Your task to perform on an android device: See recent photos Image 0: 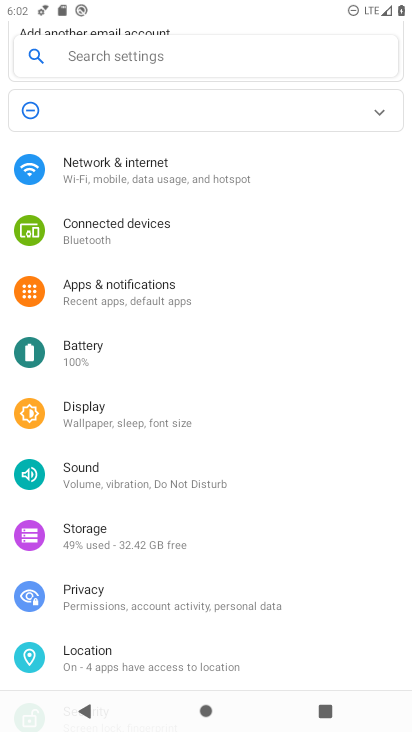
Step 0: press home button
Your task to perform on an android device: See recent photos Image 1: 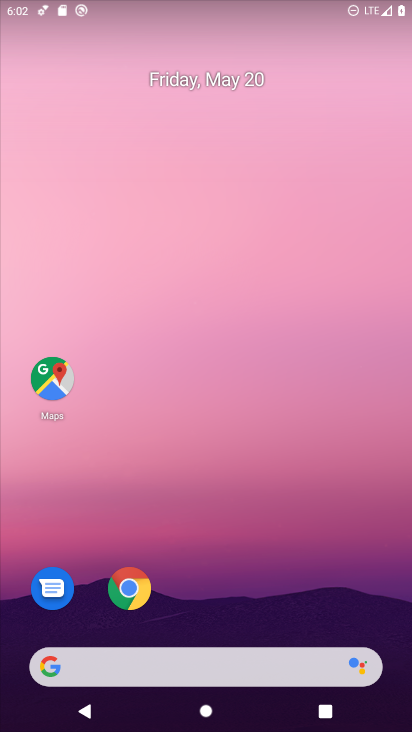
Step 1: drag from (213, 556) to (292, 99)
Your task to perform on an android device: See recent photos Image 2: 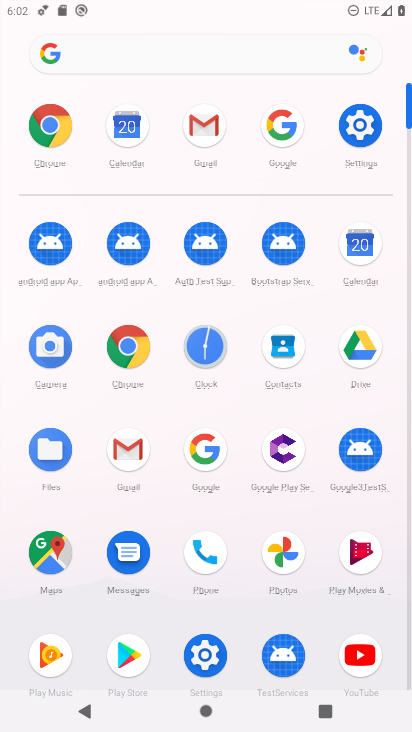
Step 2: click (286, 578)
Your task to perform on an android device: See recent photos Image 3: 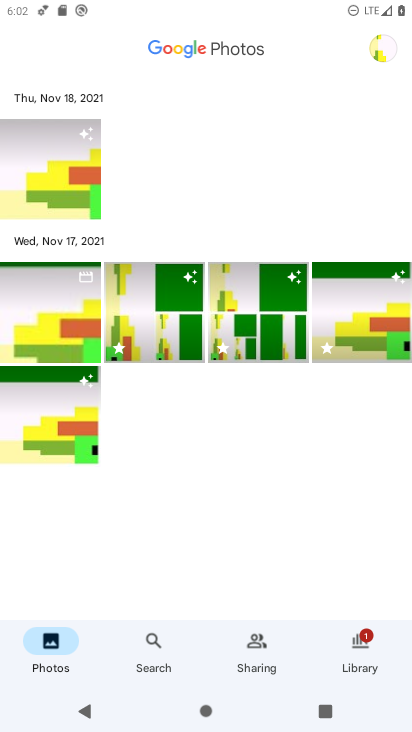
Step 3: click (355, 647)
Your task to perform on an android device: See recent photos Image 4: 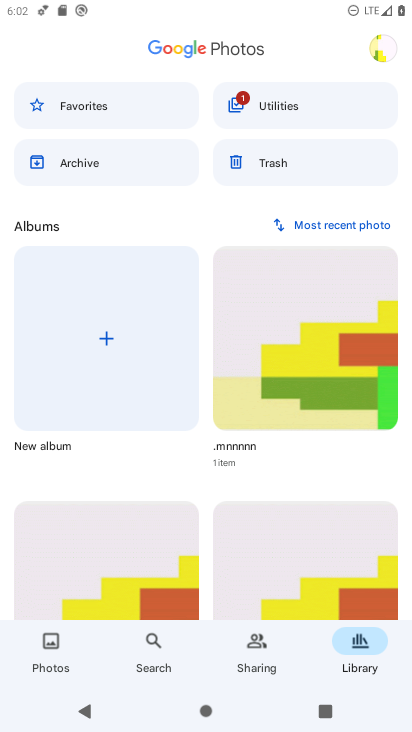
Step 4: task complete